Your task to perform on an android device: Open the Play Movies app and select the watchlist tab. Image 0: 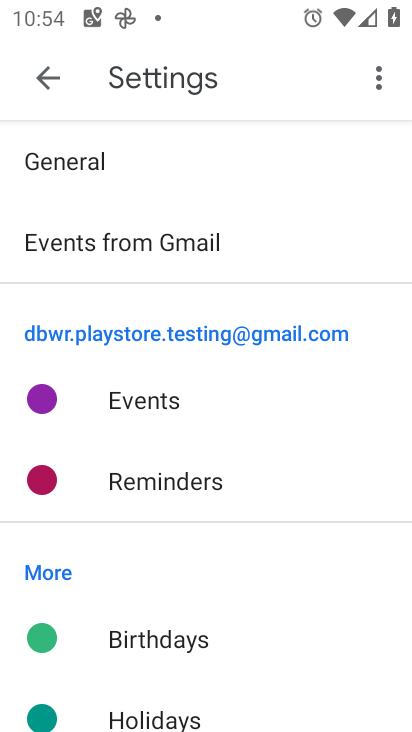
Step 0: press home button
Your task to perform on an android device: Open the Play Movies app and select the watchlist tab. Image 1: 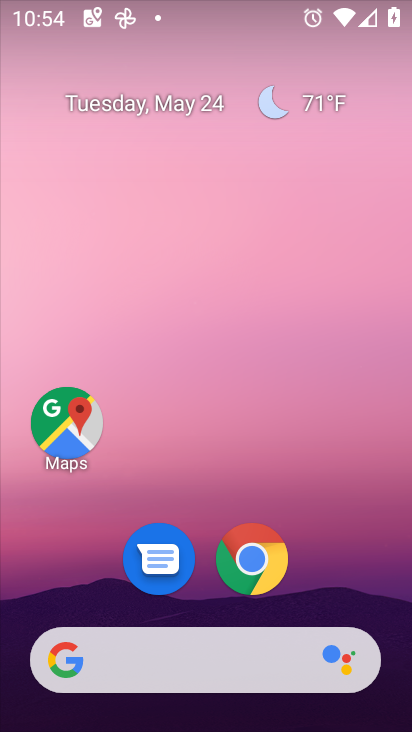
Step 1: drag from (377, 624) to (271, 113)
Your task to perform on an android device: Open the Play Movies app and select the watchlist tab. Image 2: 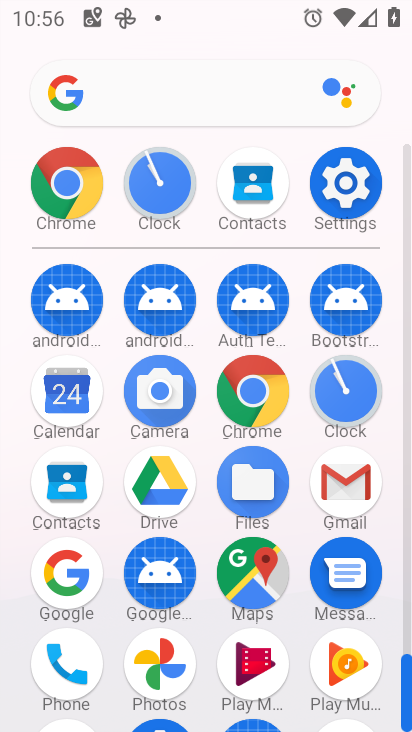
Step 2: click (261, 652)
Your task to perform on an android device: Open the Play Movies app and select the watchlist tab. Image 3: 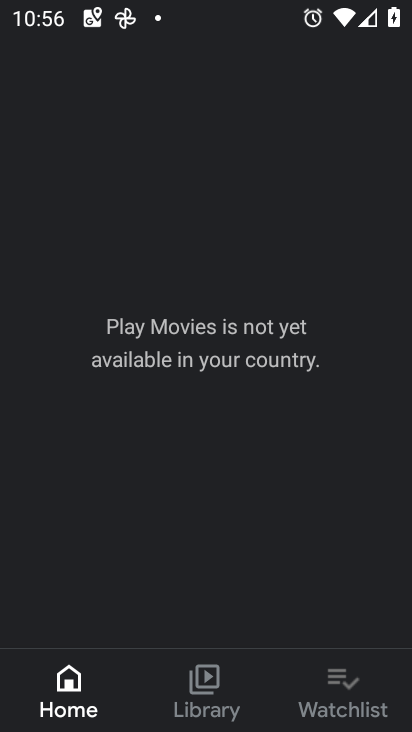
Step 3: click (324, 692)
Your task to perform on an android device: Open the Play Movies app and select the watchlist tab. Image 4: 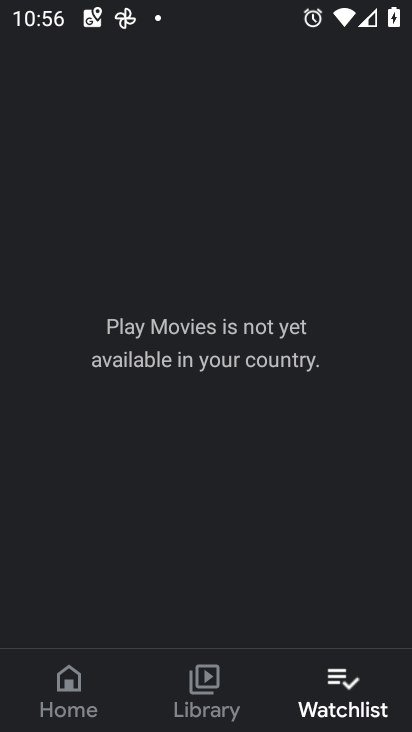
Step 4: task complete